Your task to perform on an android device: turn pop-ups off in chrome Image 0: 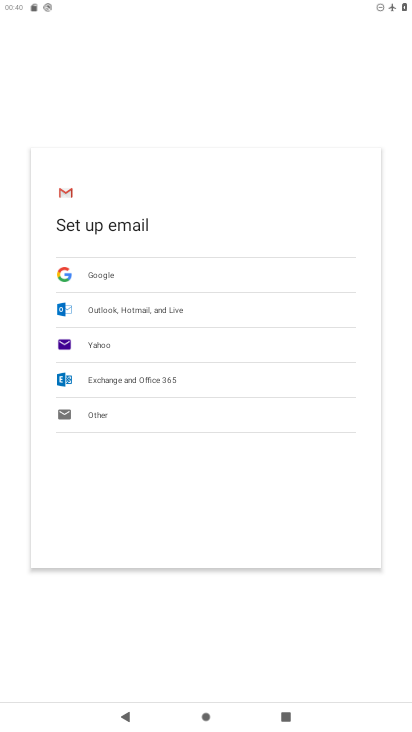
Step 0: press home button
Your task to perform on an android device: turn pop-ups off in chrome Image 1: 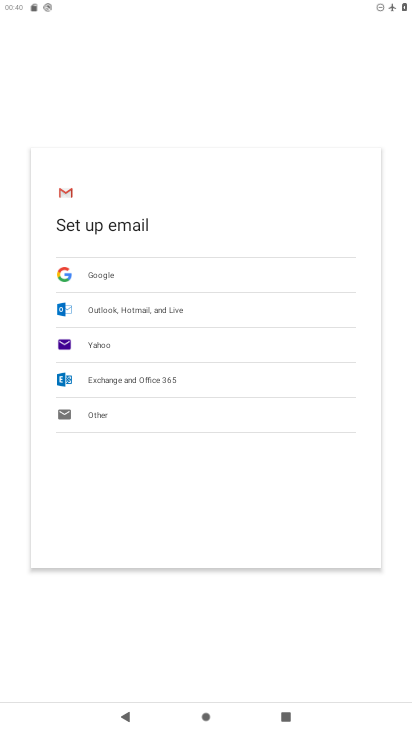
Step 1: press home button
Your task to perform on an android device: turn pop-ups off in chrome Image 2: 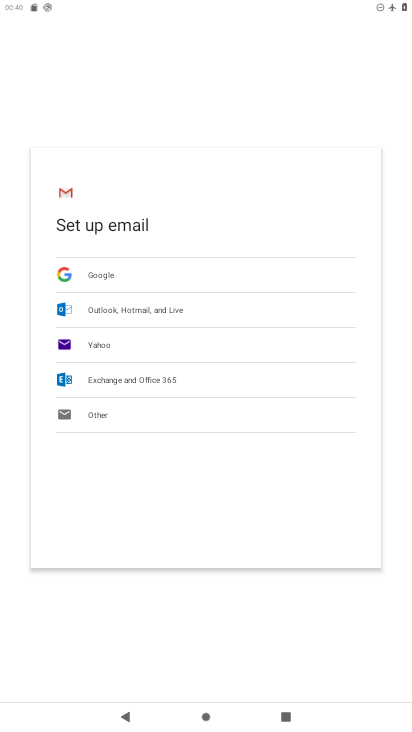
Step 2: drag from (206, 324) to (204, 244)
Your task to perform on an android device: turn pop-ups off in chrome Image 3: 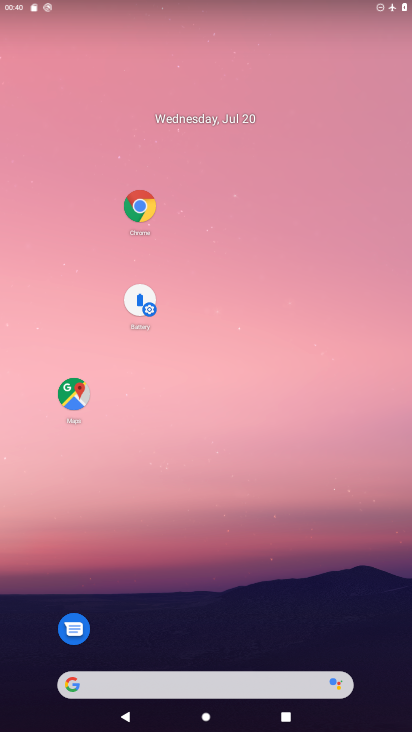
Step 3: drag from (267, 642) to (267, 225)
Your task to perform on an android device: turn pop-ups off in chrome Image 4: 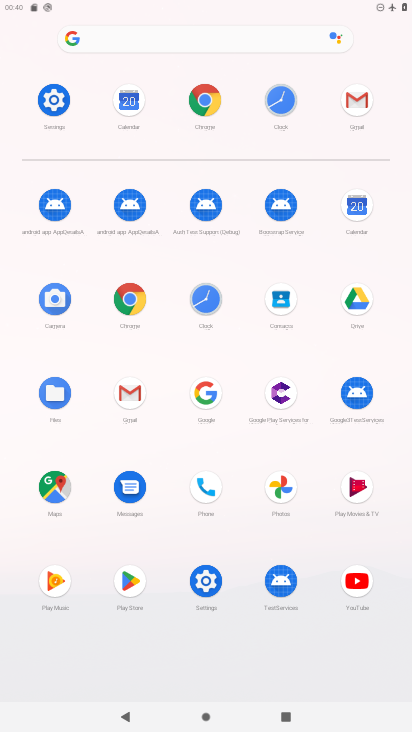
Step 4: click (134, 307)
Your task to perform on an android device: turn pop-ups off in chrome Image 5: 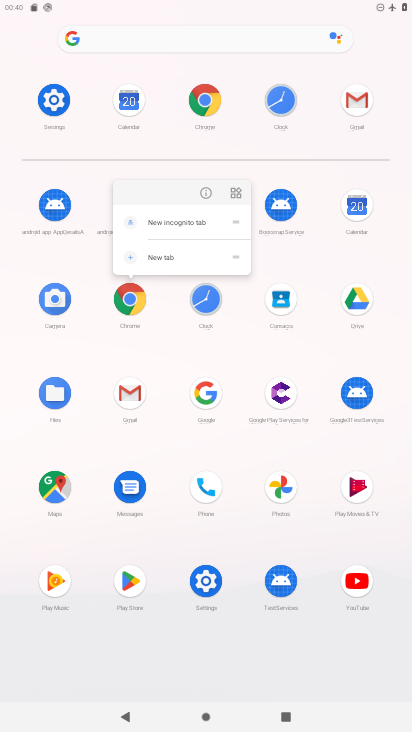
Step 5: click (211, 195)
Your task to perform on an android device: turn pop-ups off in chrome Image 6: 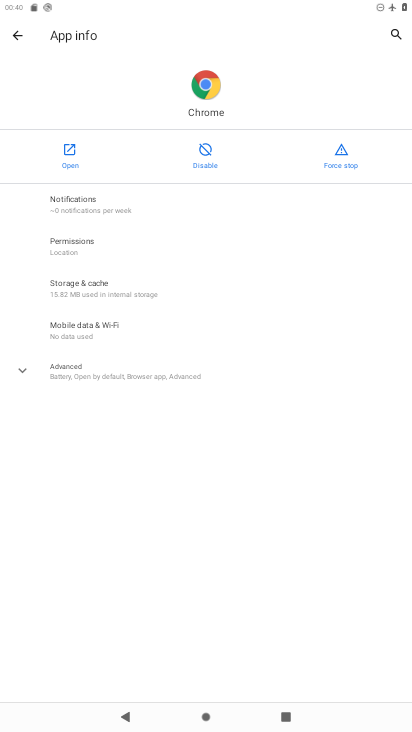
Step 6: click (71, 159)
Your task to perform on an android device: turn pop-ups off in chrome Image 7: 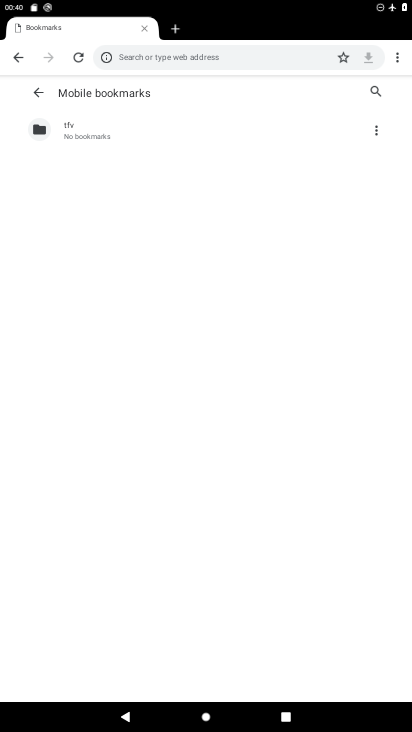
Step 7: click (391, 57)
Your task to perform on an android device: turn pop-ups off in chrome Image 8: 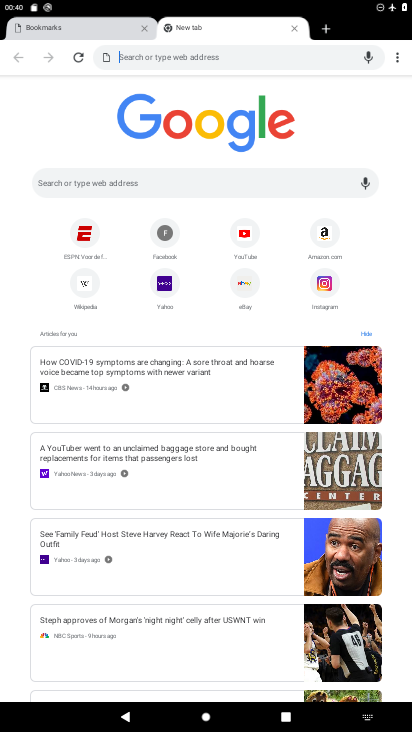
Step 8: drag from (397, 51) to (318, 267)
Your task to perform on an android device: turn pop-ups off in chrome Image 9: 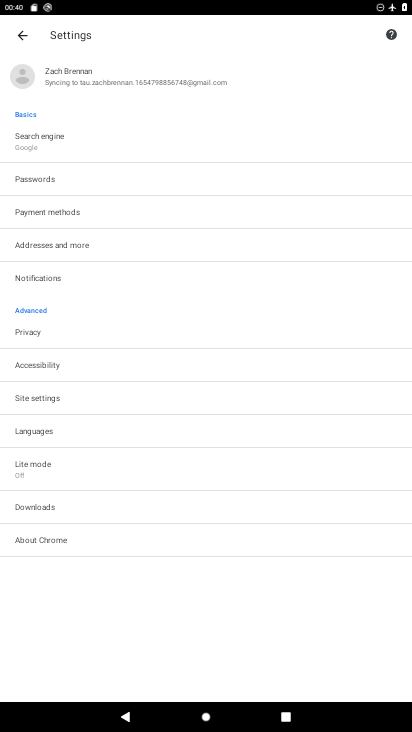
Step 9: drag from (193, 442) to (246, 221)
Your task to perform on an android device: turn pop-ups off in chrome Image 10: 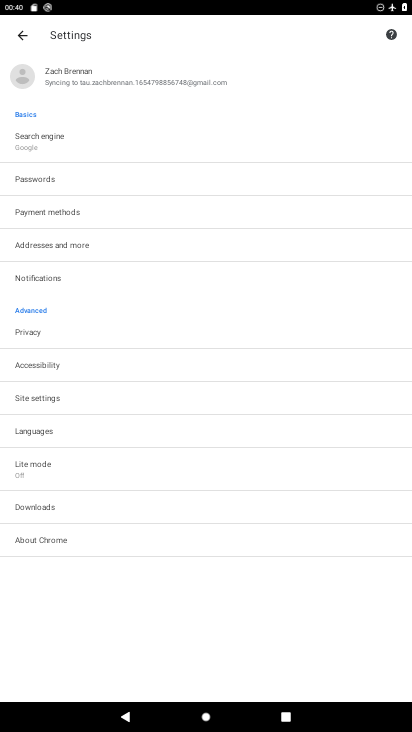
Step 10: click (63, 405)
Your task to perform on an android device: turn pop-ups off in chrome Image 11: 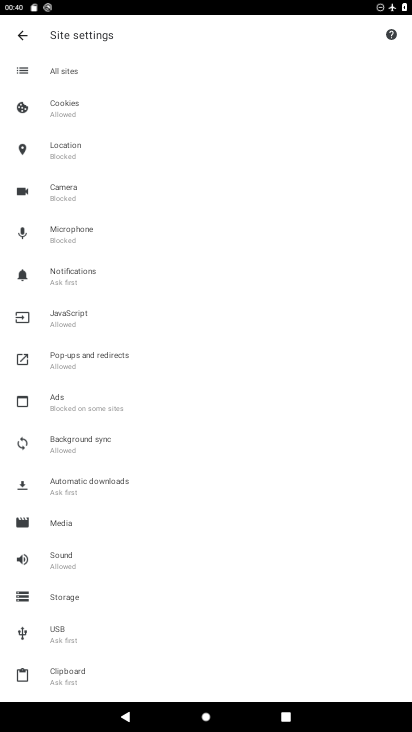
Step 11: click (110, 355)
Your task to perform on an android device: turn pop-ups off in chrome Image 12: 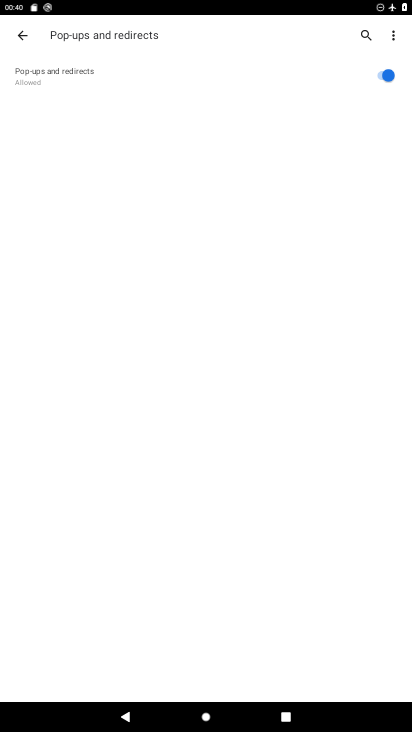
Step 12: click (389, 71)
Your task to perform on an android device: turn pop-ups off in chrome Image 13: 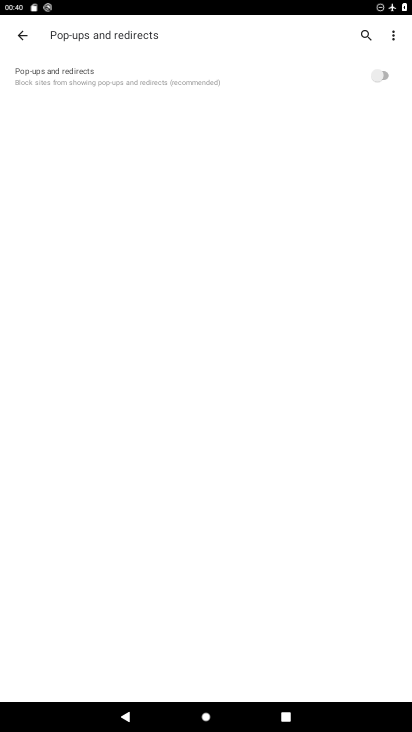
Step 13: task complete